Your task to perform on an android device: Open my contact list Image 0: 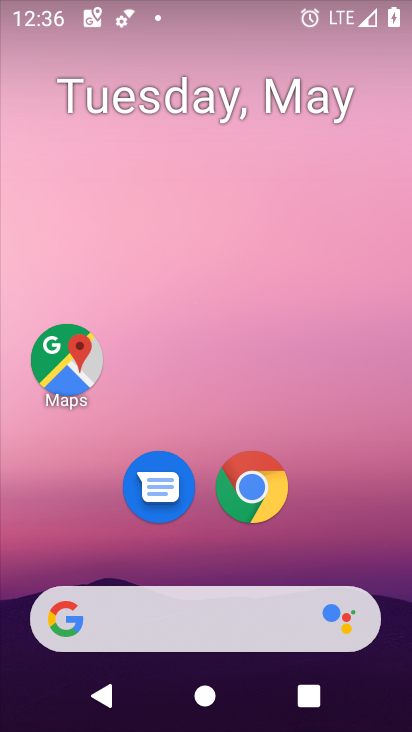
Step 0: drag from (49, 504) to (244, 189)
Your task to perform on an android device: Open my contact list Image 1: 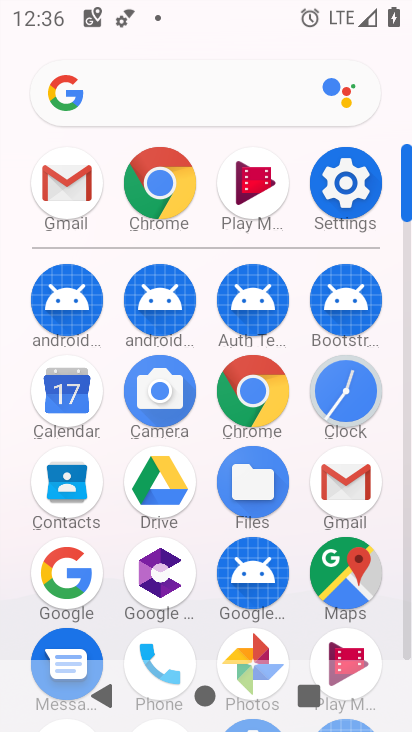
Step 1: click (172, 657)
Your task to perform on an android device: Open my contact list Image 2: 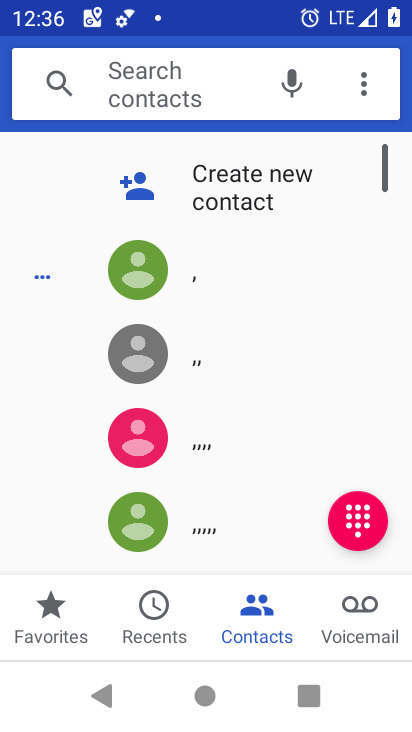
Step 2: click (274, 179)
Your task to perform on an android device: Open my contact list Image 3: 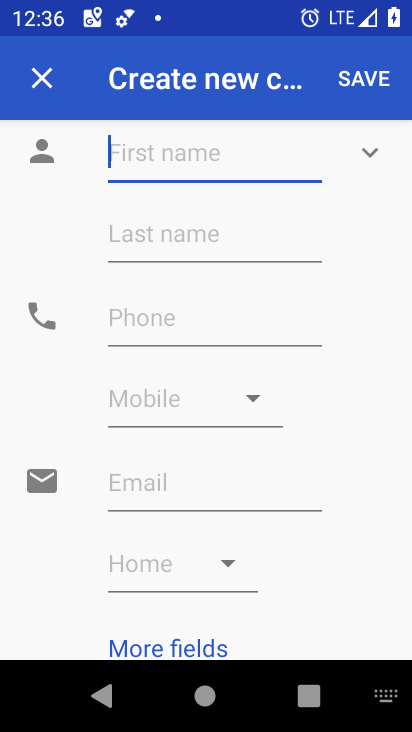
Step 3: task complete